Your task to perform on an android device: Open Google Chrome Image 0: 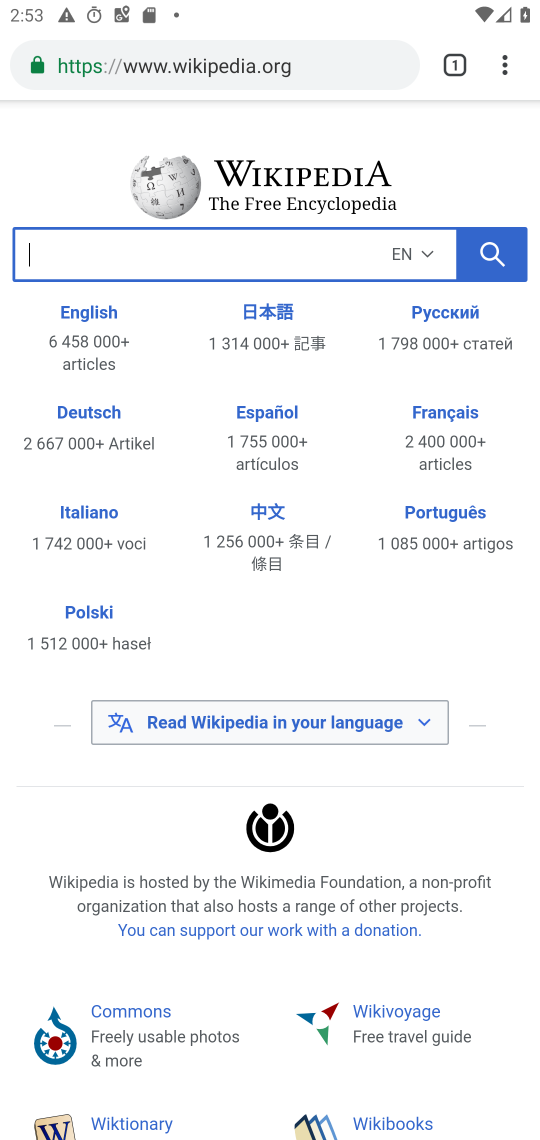
Step 0: press home button
Your task to perform on an android device: Open Google Chrome Image 1: 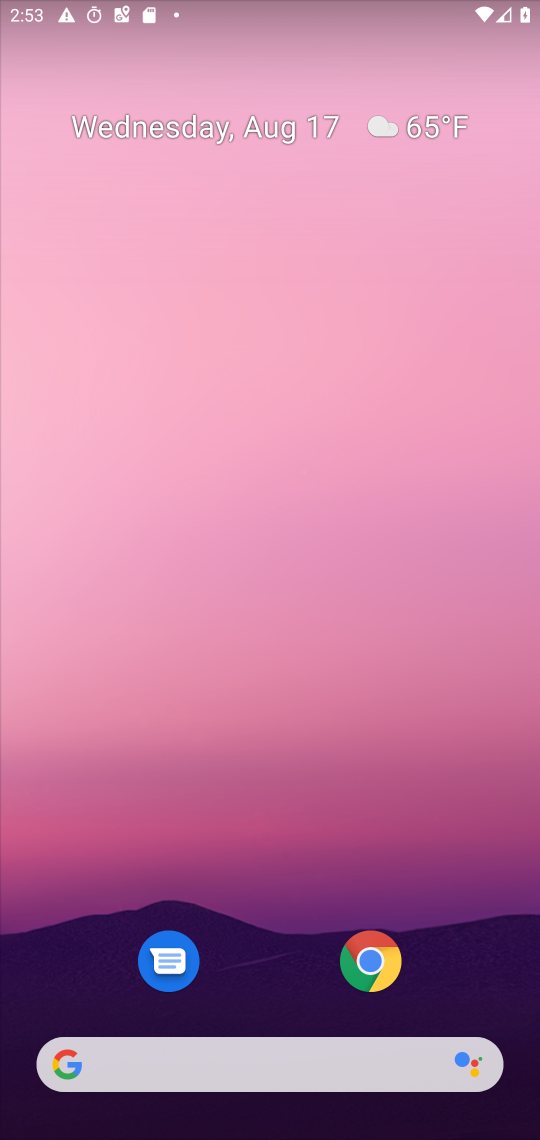
Step 1: drag from (353, 994) to (479, 187)
Your task to perform on an android device: Open Google Chrome Image 2: 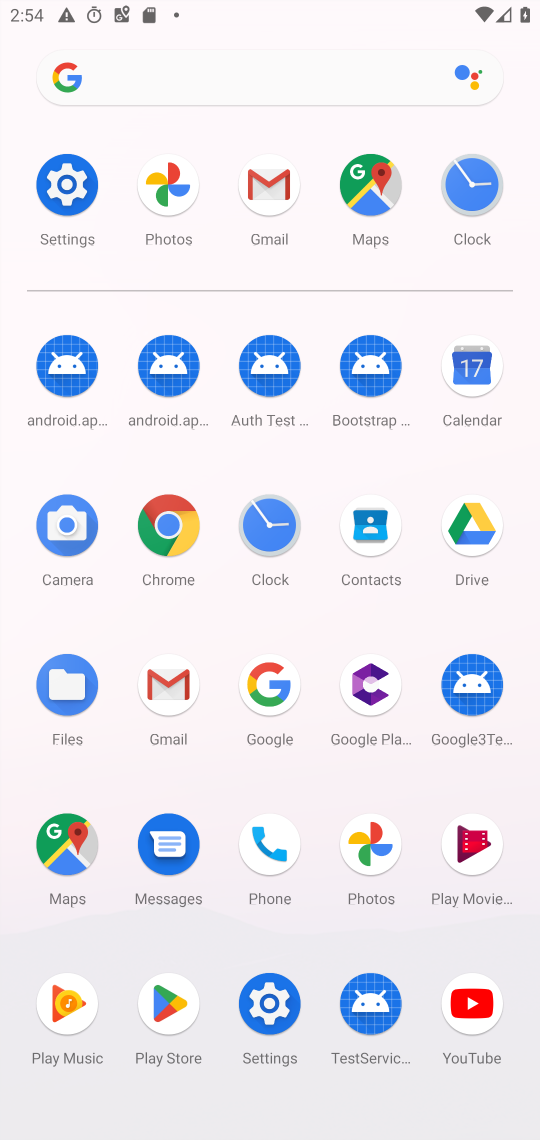
Step 2: click (182, 532)
Your task to perform on an android device: Open Google Chrome Image 3: 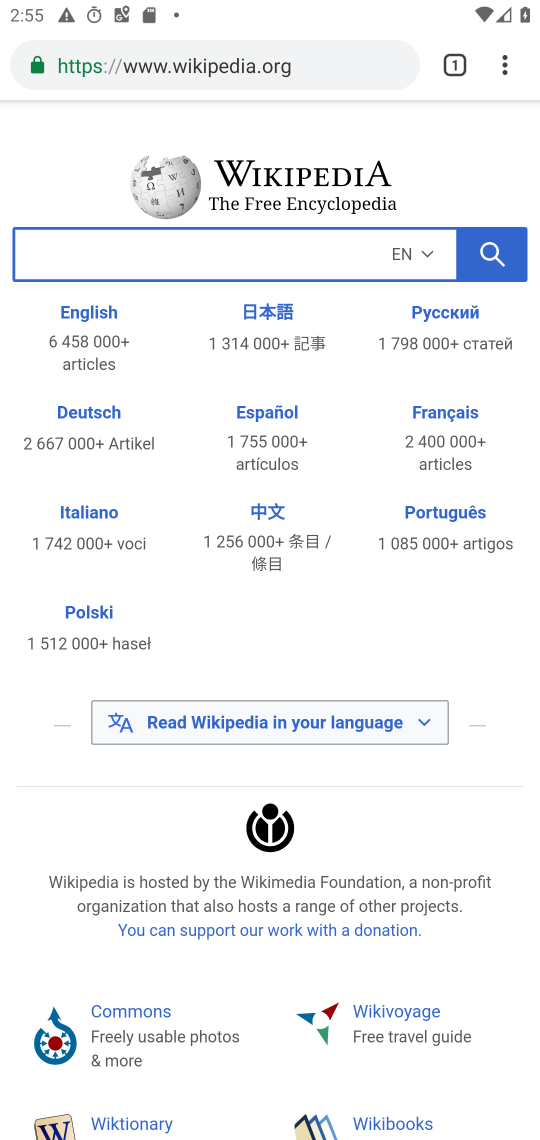
Step 3: task complete